Your task to perform on an android device: open sync settings in chrome Image 0: 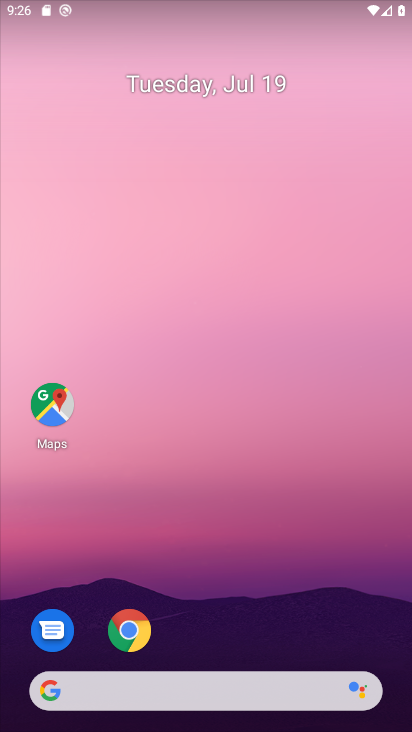
Step 0: drag from (223, 646) to (262, 122)
Your task to perform on an android device: open sync settings in chrome Image 1: 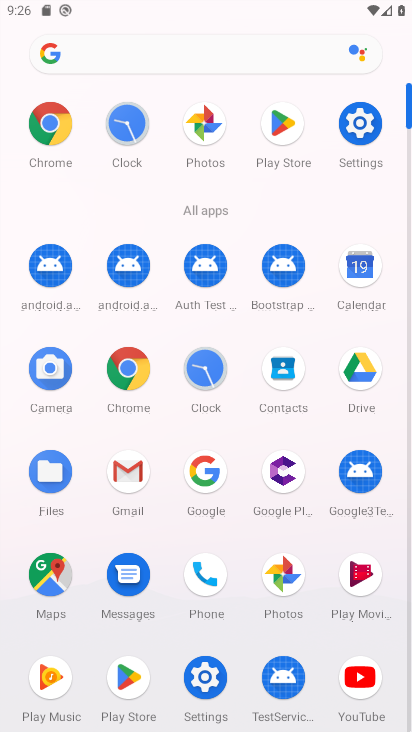
Step 1: click (134, 376)
Your task to perform on an android device: open sync settings in chrome Image 2: 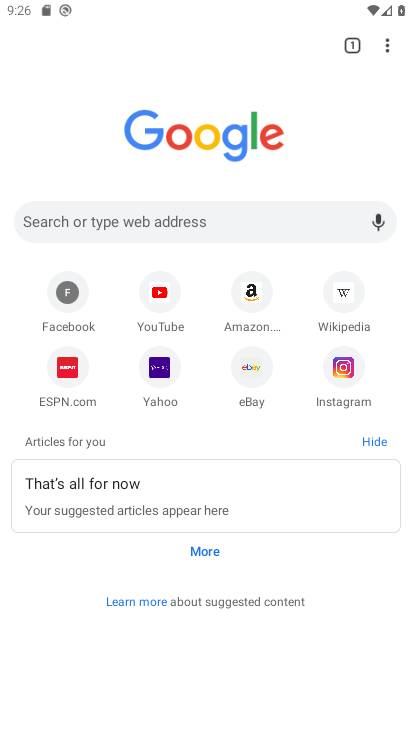
Step 2: click (393, 45)
Your task to perform on an android device: open sync settings in chrome Image 3: 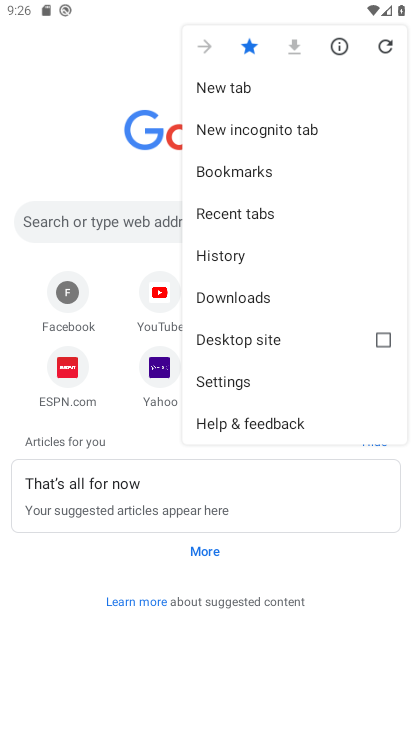
Step 3: click (228, 375)
Your task to perform on an android device: open sync settings in chrome Image 4: 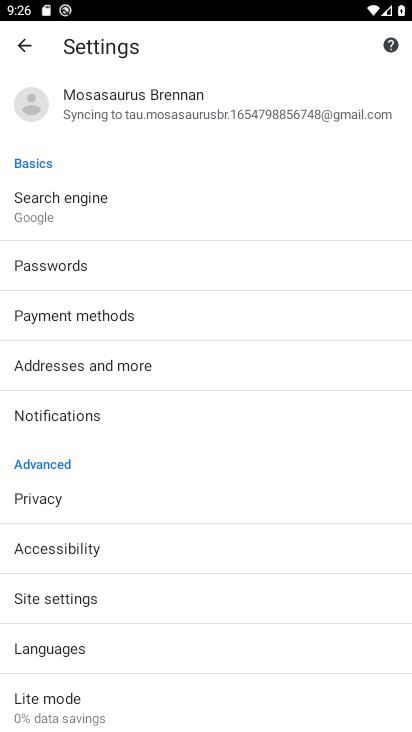
Step 4: click (154, 109)
Your task to perform on an android device: open sync settings in chrome Image 5: 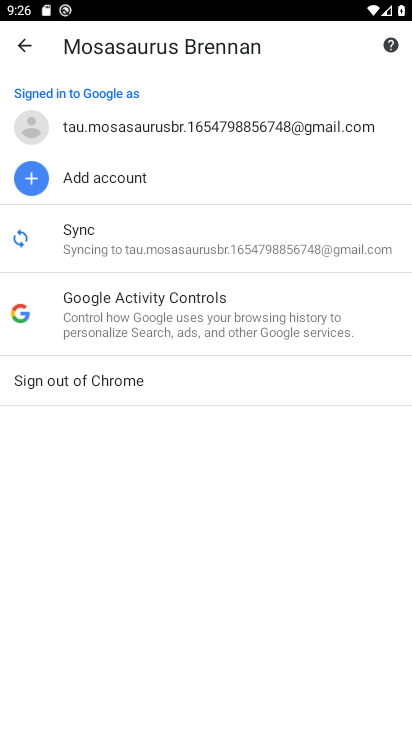
Step 5: click (128, 247)
Your task to perform on an android device: open sync settings in chrome Image 6: 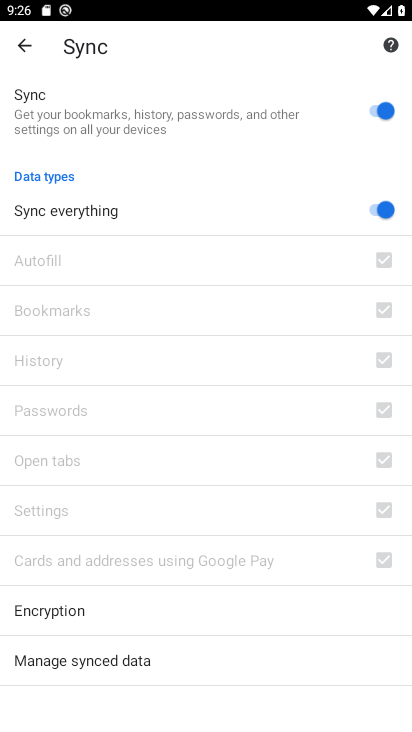
Step 6: task complete